Your task to perform on an android device: Go to Yahoo.com Image 0: 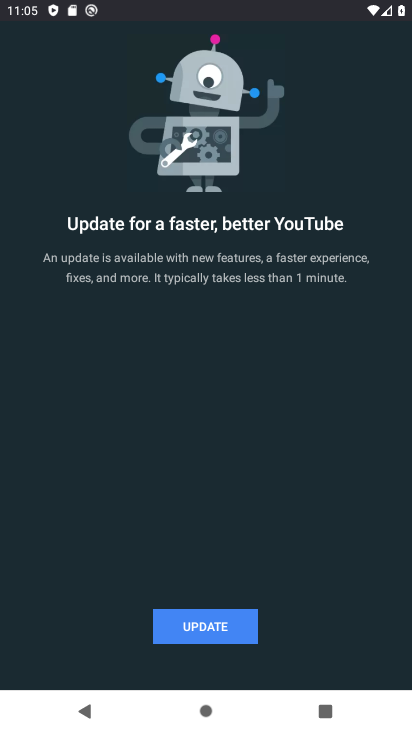
Step 0: press home button
Your task to perform on an android device: Go to Yahoo.com Image 1: 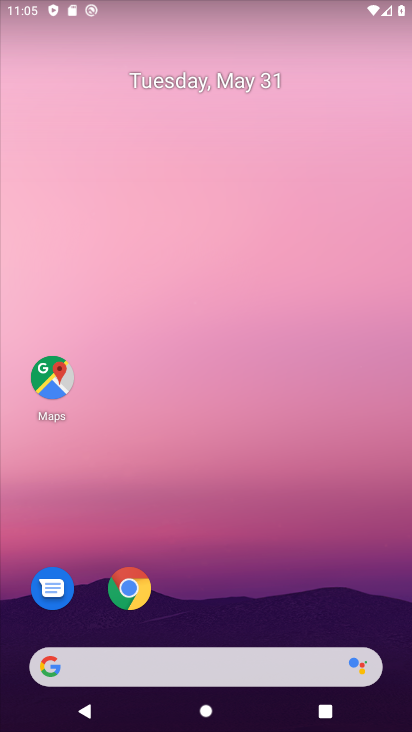
Step 1: drag from (126, 592) to (272, 592)
Your task to perform on an android device: Go to Yahoo.com Image 2: 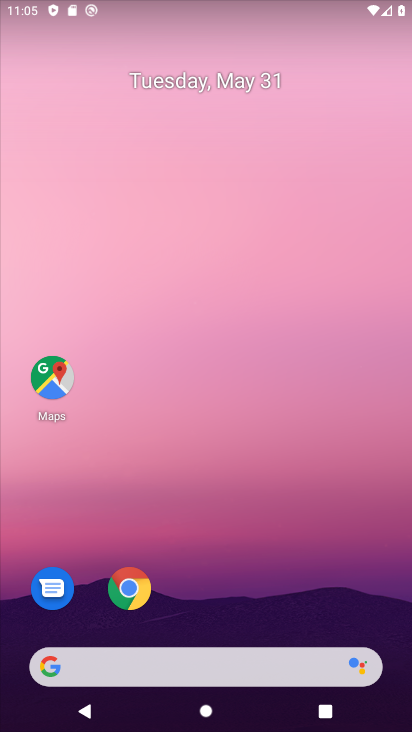
Step 2: click (127, 592)
Your task to perform on an android device: Go to Yahoo.com Image 3: 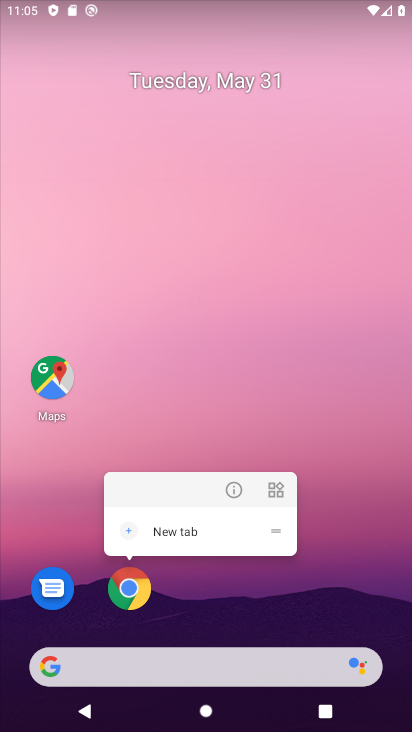
Step 3: click (233, 491)
Your task to perform on an android device: Go to Yahoo.com Image 4: 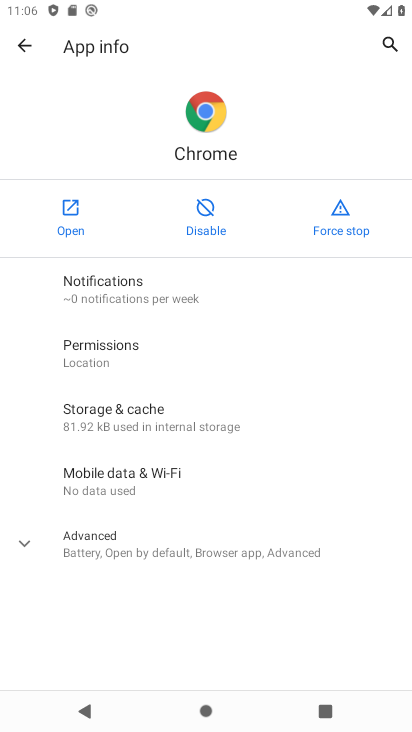
Step 4: click (65, 228)
Your task to perform on an android device: Go to Yahoo.com Image 5: 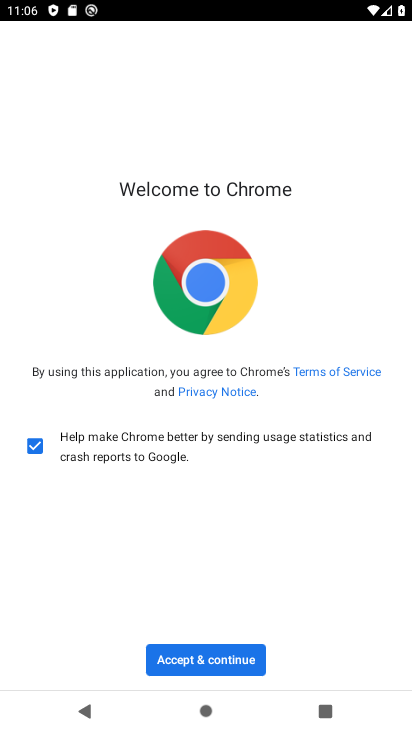
Step 5: click (143, 675)
Your task to perform on an android device: Go to Yahoo.com Image 6: 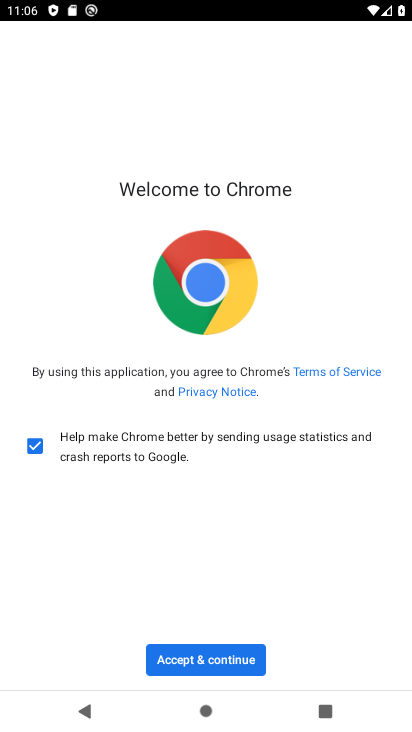
Step 6: click (187, 665)
Your task to perform on an android device: Go to Yahoo.com Image 7: 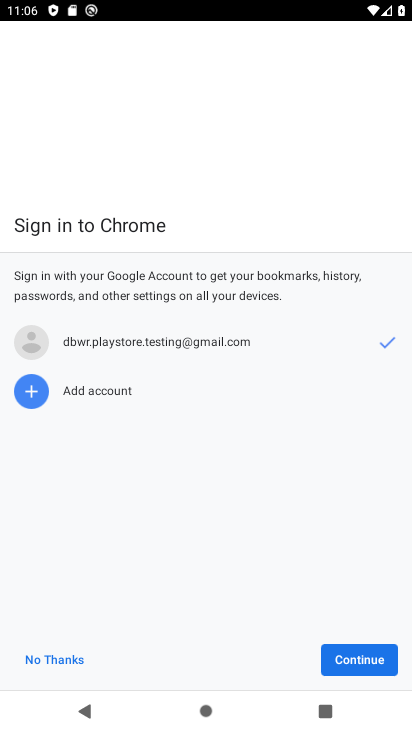
Step 7: click (346, 668)
Your task to perform on an android device: Go to Yahoo.com Image 8: 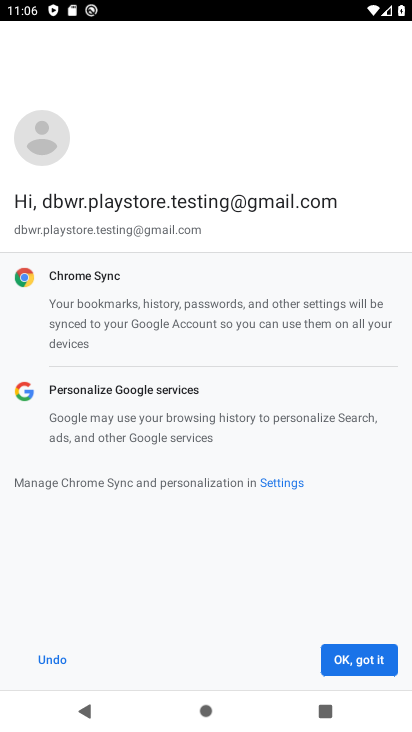
Step 8: click (347, 667)
Your task to perform on an android device: Go to Yahoo.com Image 9: 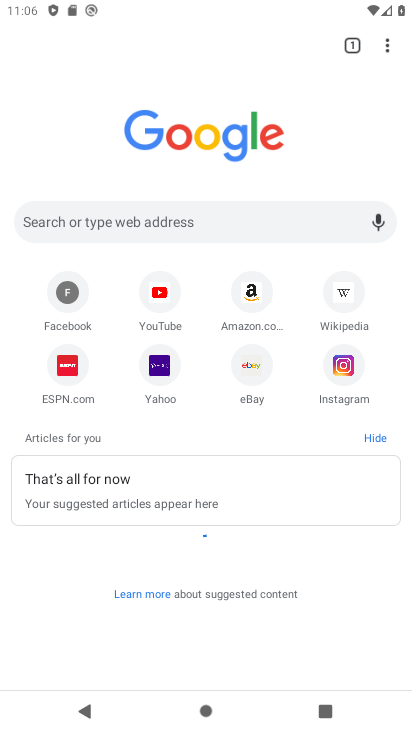
Step 9: click (148, 224)
Your task to perform on an android device: Go to Yahoo.com Image 10: 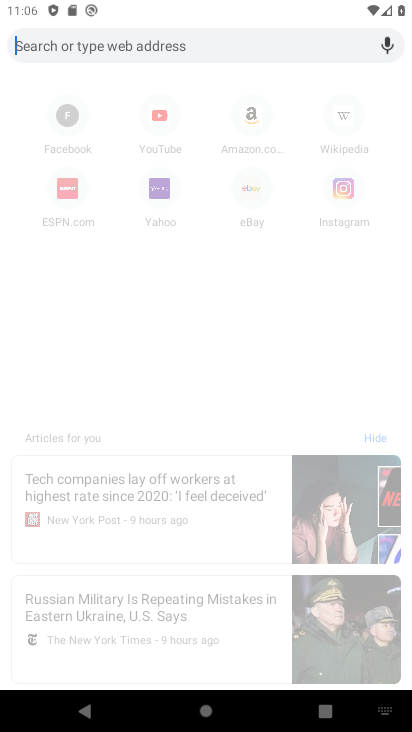
Step 10: type "Yahoo.com"
Your task to perform on an android device: Go to Yahoo.com Image 11: 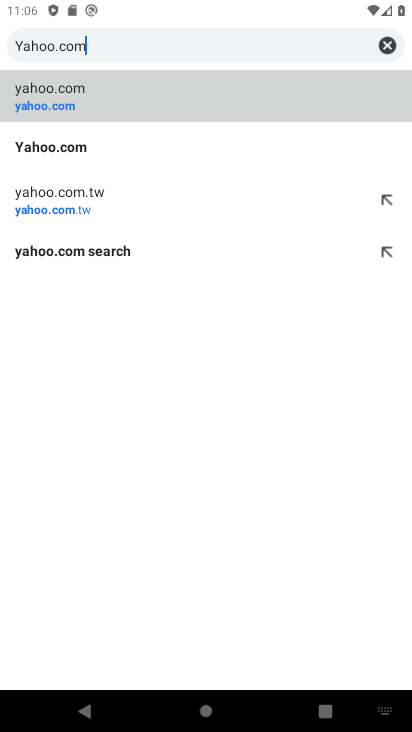
Step 11: click (181, 83)
Your task to perform on an android device: Go to Yahoo.com Image 12: 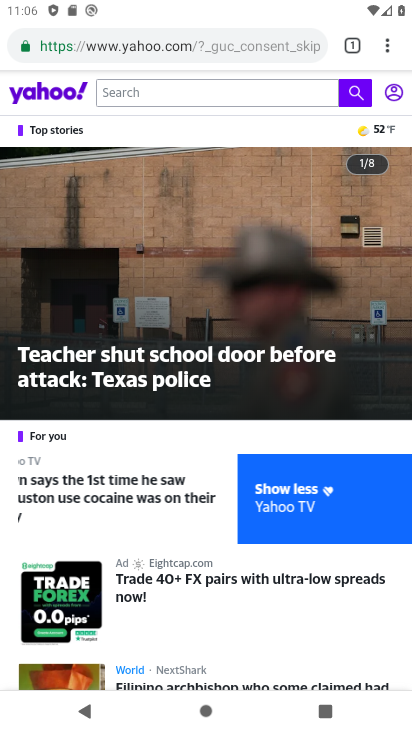
Step 12: task complete